Your task to perform on an android device: Clear all items from cart on costco. Image 0: 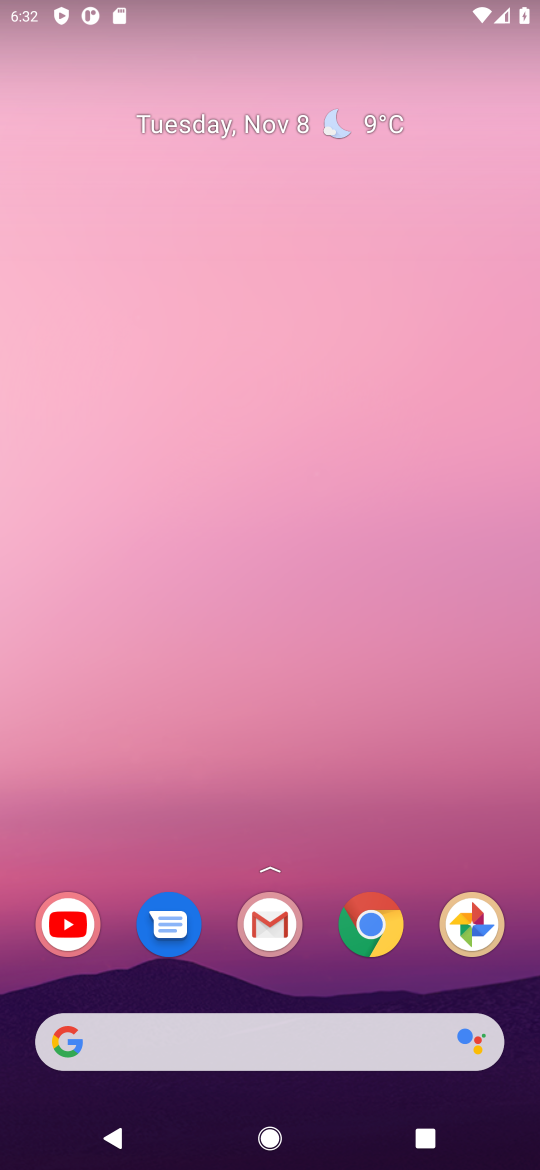
Step 0: click (212, 1041)
Your task to perform on an android device: Clear all items from cart on costco. Image 1: 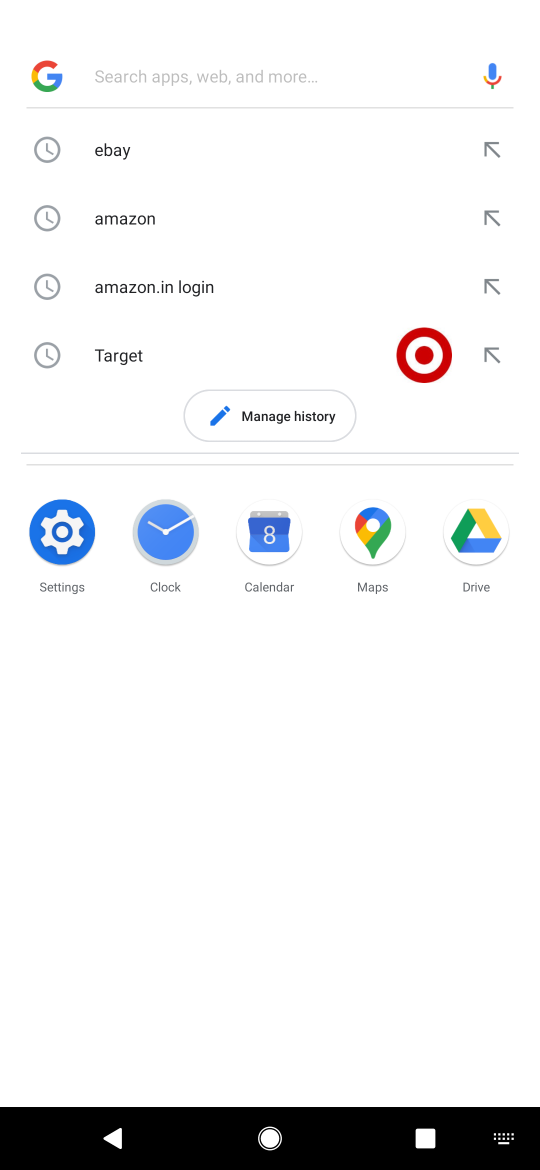
Step 1: type "costco"
Your task to perform on an android device: Clear all items from cart on costco. Image 2: 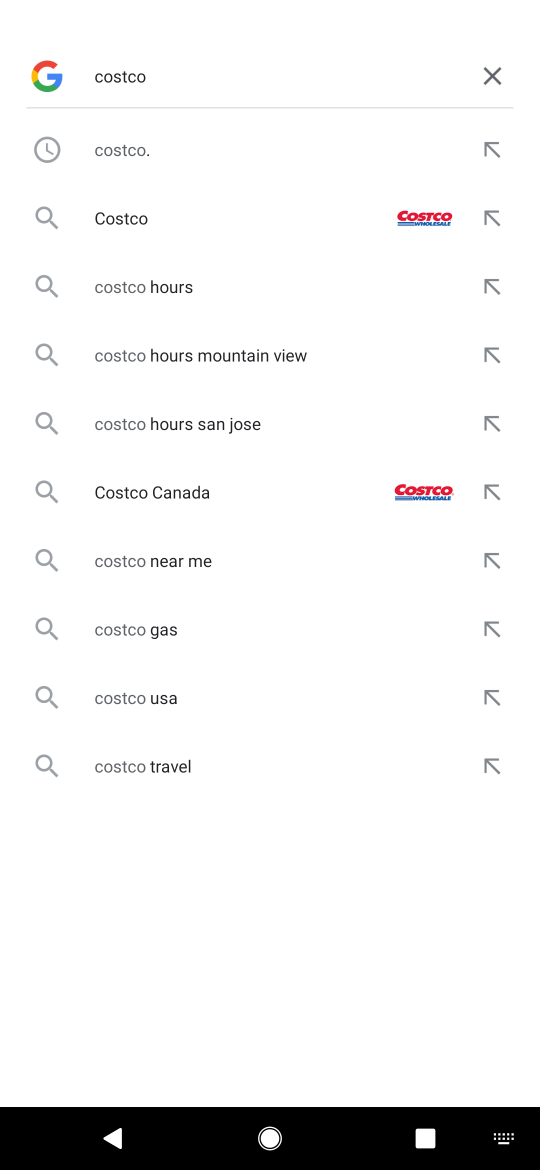
Step 2: click (315, 220)
Your task to perform on an android device: Clear all items from cart on costco. Image 3: 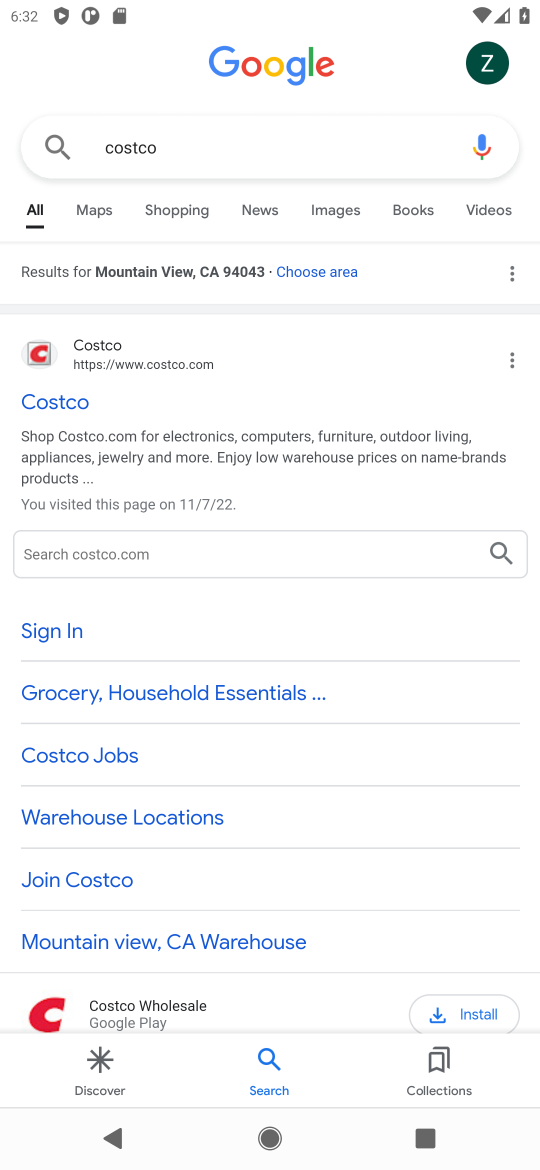
Step 3: click (103, 333)
Your task to perform on an android device: Clear all items from cart on costco. Image 4: 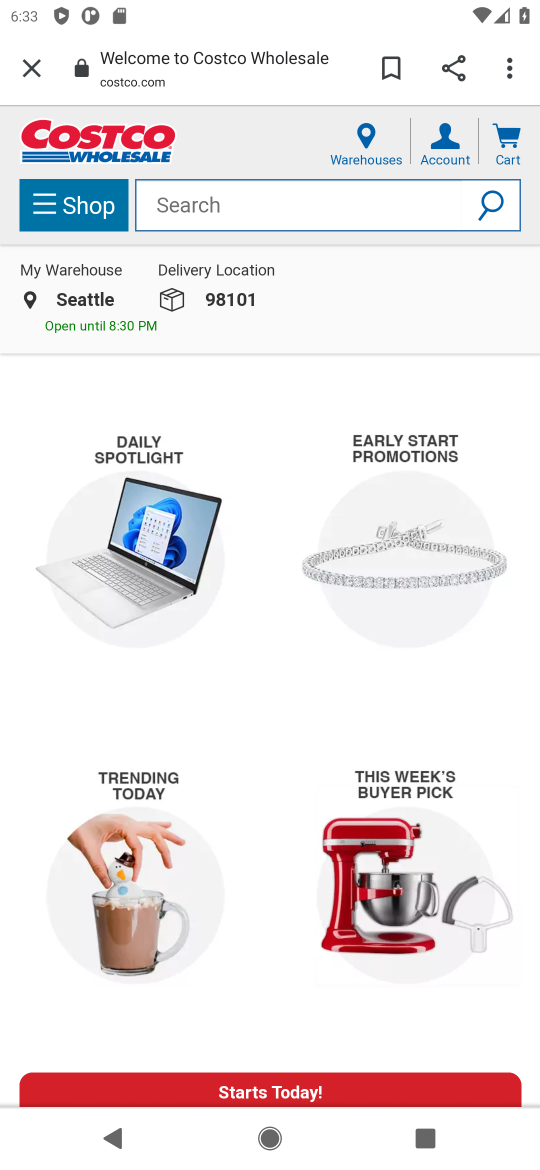
Step 4: click (504, 137)
Your task to perform on an android device: Clear all items from cart on costco. Image 5: 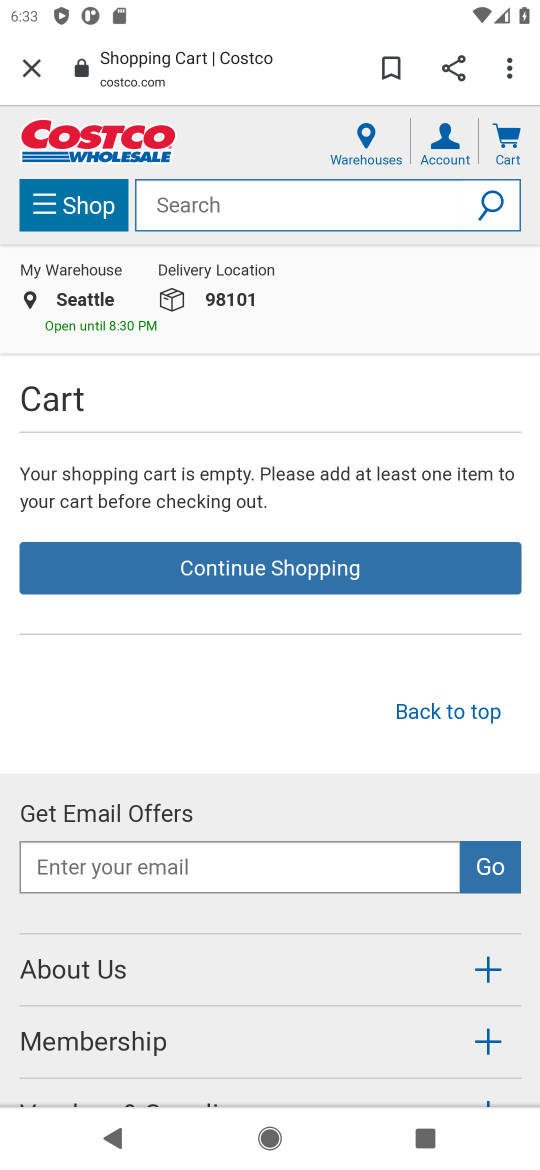
Step 5: task complete